Your task to perform on an android device: change the clock style Image 0: 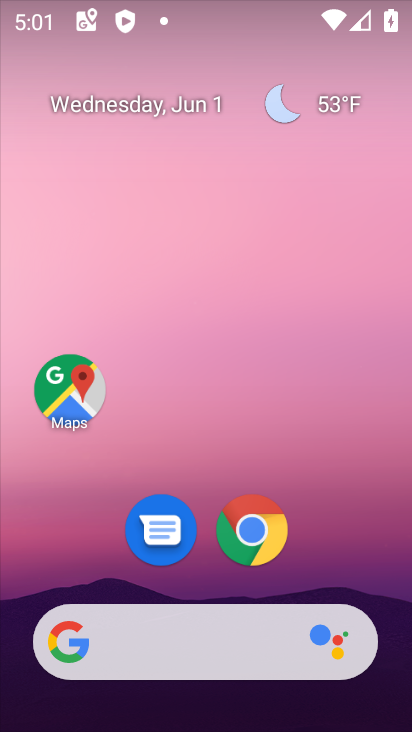
Step 0: drag from (313, 559) to (292, 283)
Your task to perform on an android device: change the clock style Image 1: 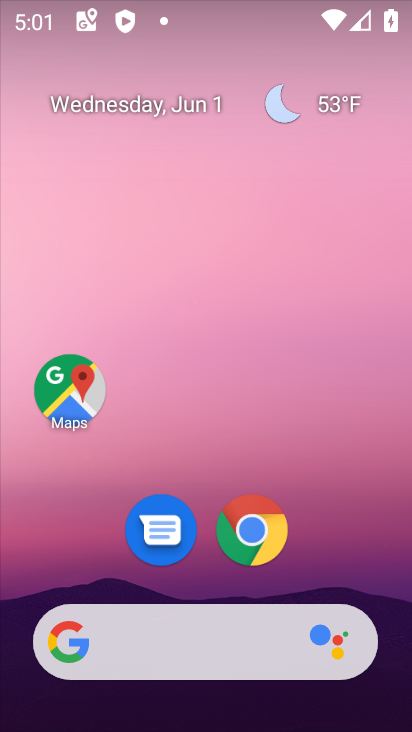
Step 1: drag from (265, 576) to (263, 157)
Your task to perform on an android device: change the clock style Image 2: 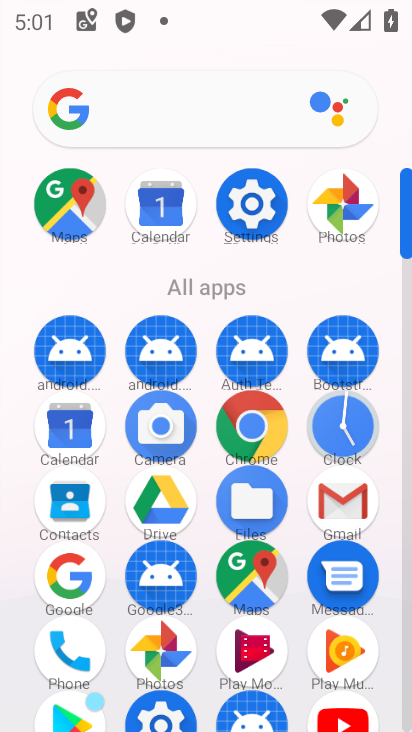
Step 2: click (353, 441)
Your task to perform on an android device: change the clock style Image 3: 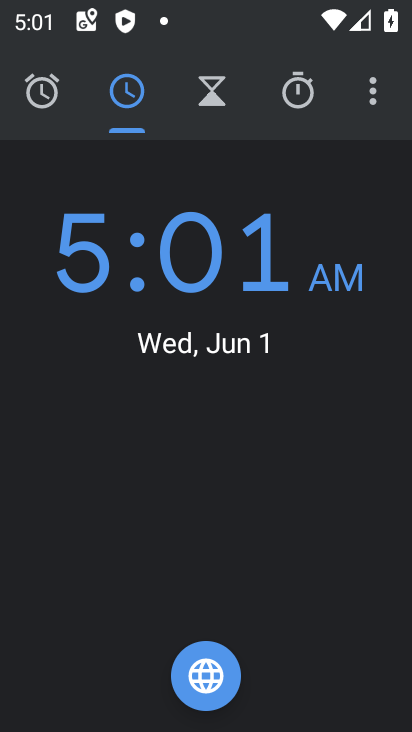
Step 3: click (373, 106)
Your task to perform on an android device: change the clock style Image 4: 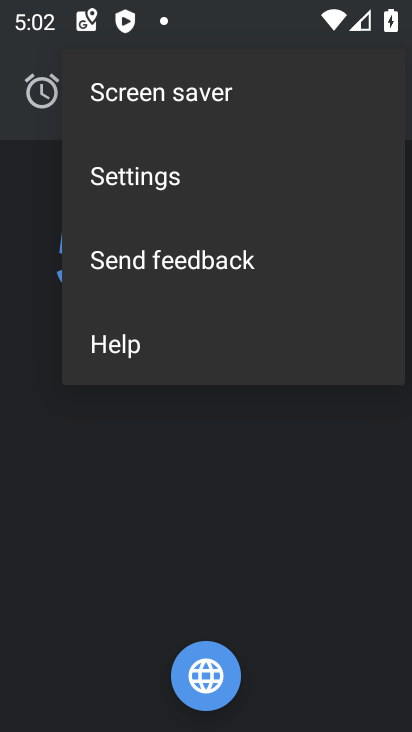
Step 4: click (169, 181)
Your task to perform on an android device: change the clock style Image 5: 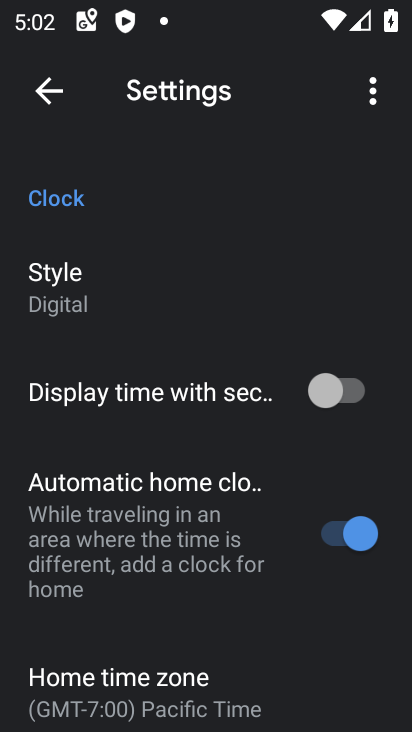
Step 5: click (95, 279)
Your task to perform on an android device: change the clock style Image 6: 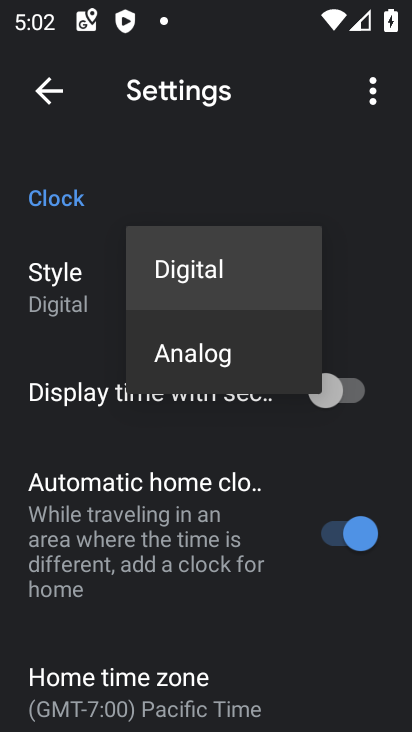
Step 6: click (201, 350)
Your task to perform on an android device: change the clock style Image 7: 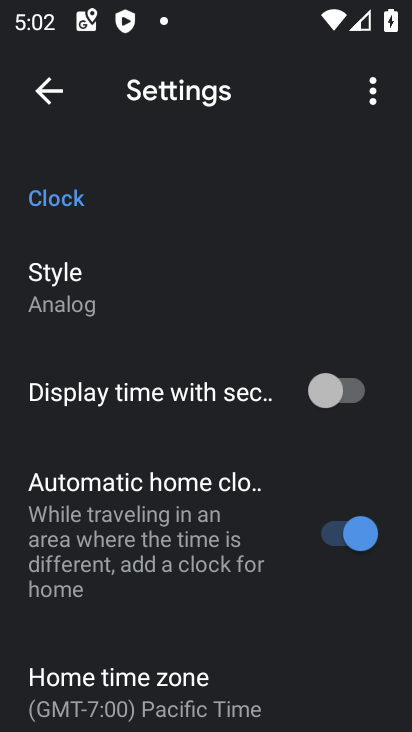
Step 7: task complete